Your task to perform on an android device: turn on sleep mode Image 0: 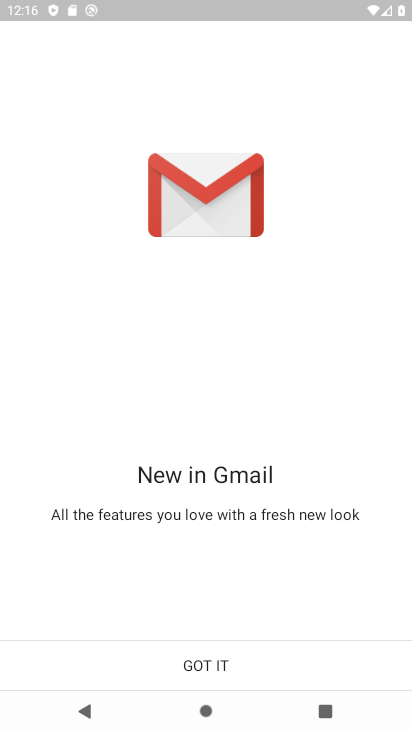
Step 0: press home button
Your task to perform on an android device: turn on sleep mode Image 1: 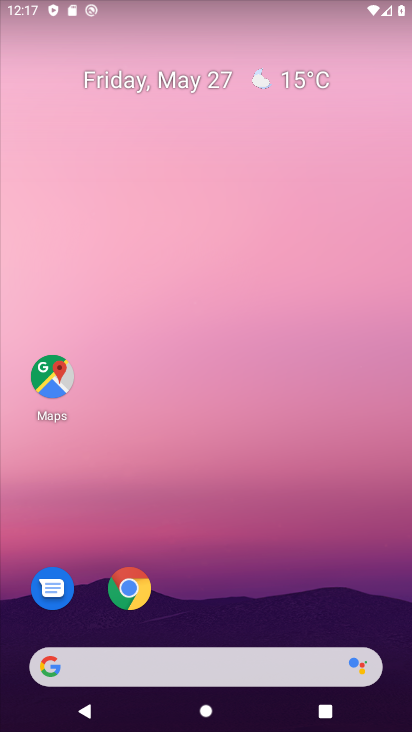
Step 1: drag from (384, 610) to (310, 31)
Your task to perform on an android device: turn on sleep mode Image 2: 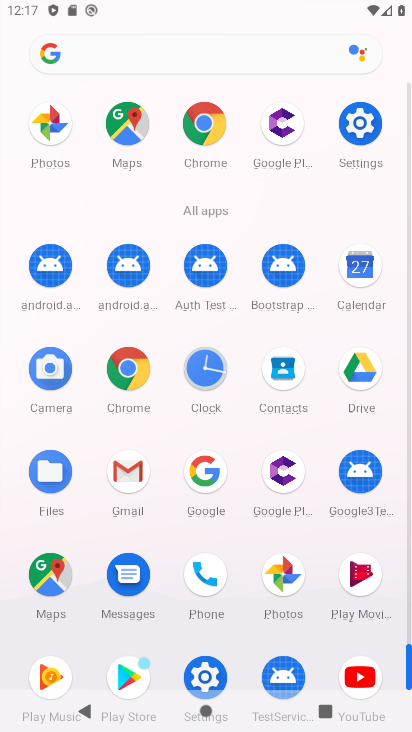
Step 2: click (205, 678)
Your task to perform on an android device: turn on sleep mode Image 3: 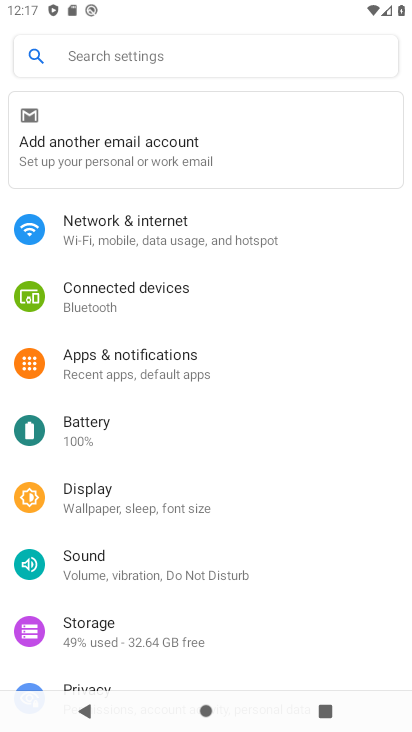
Step 3: click (121, 505)
Your task to perform on an android device: turn on sleep mode Image 4: 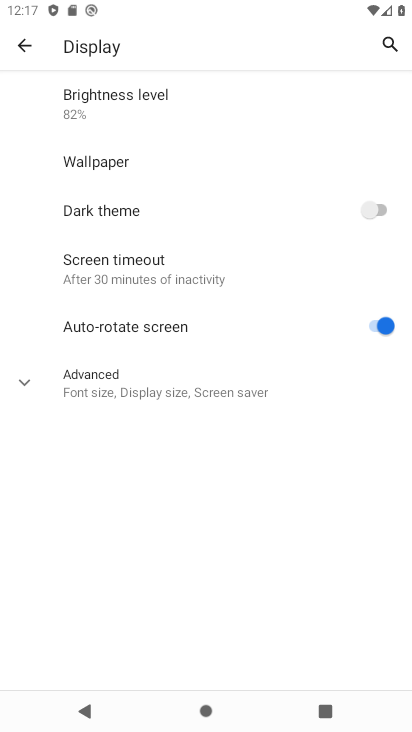
Step 4: click (16, 383)
Your task to perform on an android device: turn on sleep mode Image 5: 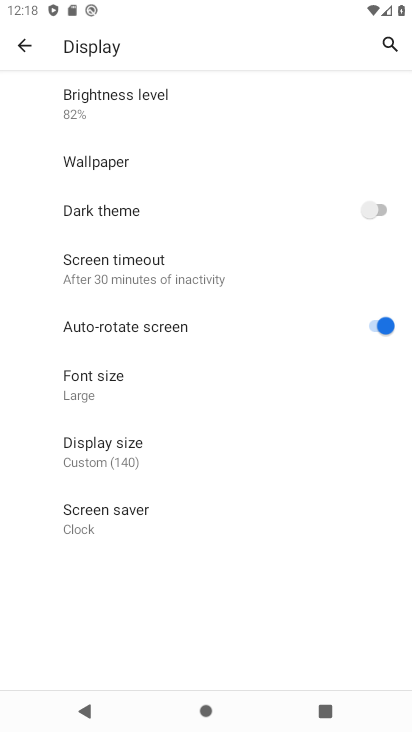
Step 5: task complete